Your task to perform on an android device: turn on priority inbox in the gmail app Image 0: 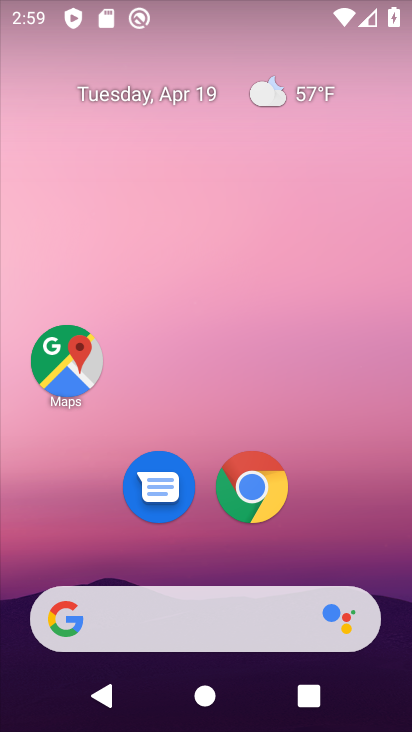
Step 0: drag from (381, 510) to (370, 199)
Your task to perform on an android device: turn on priority inbox in the gmail app Image 1: 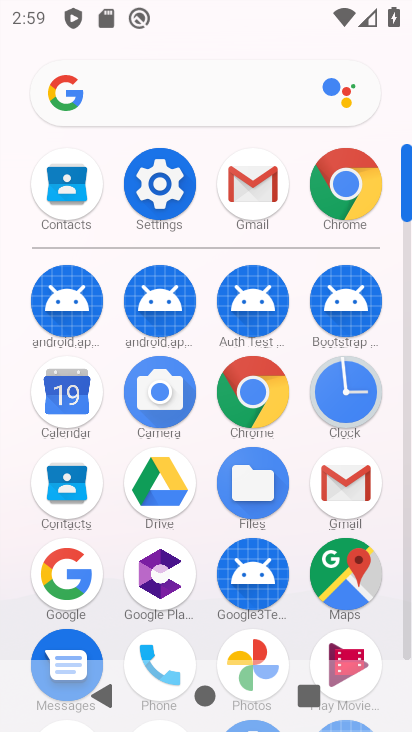
Step 1: click (344, 495)
Your task to perform on an android device: turn on priority inbox in the gmail app Image 2: 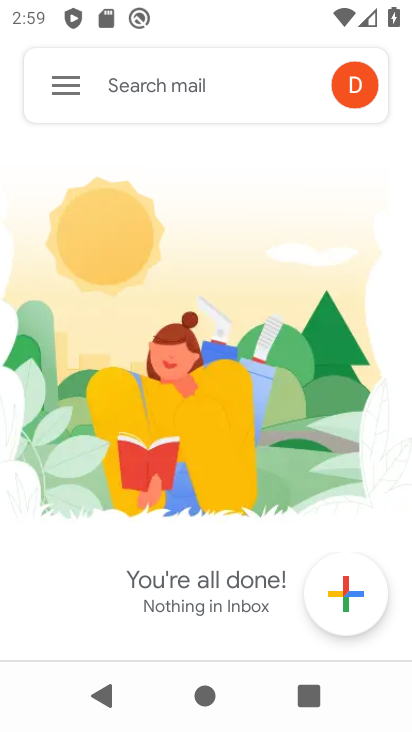
Step 2: click (72, 87)
Your task to perform on an android device: turn on priority inbox in the gmail app Image 3: 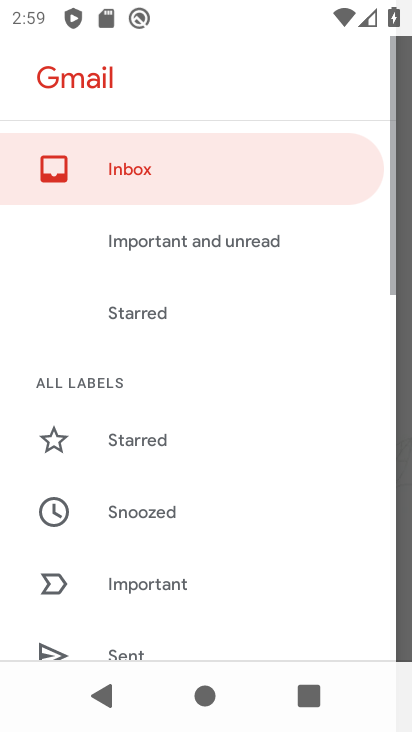
Step 3: drag from (247, 592) to (290, 263)
Your task to perform on an android device: turn on priority inbox in the gmail app Image 4: 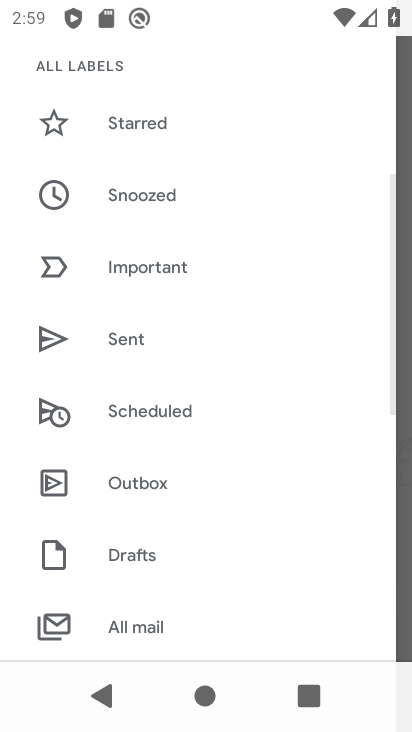
Step 4: drag from (272, 596) to (322, 301)
Your task to perform on an android device: turn on priority inbox in the gmail app Image 5: 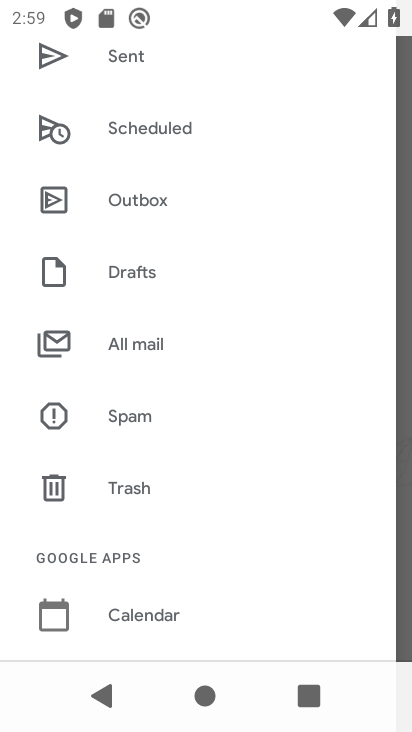
Step 5: drag from (295, 583) to (311, 269)
Your task to perform on an android device: turn on priority inbox in the gmail app Image 6: 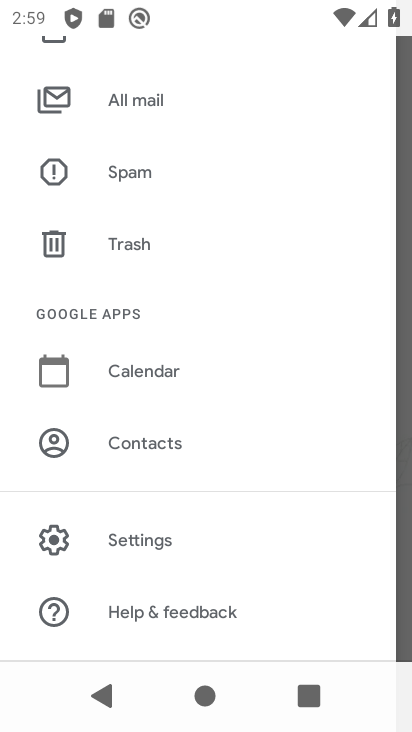
Step 6: click (164, 534)
Your task to perform on an android device: turn on priority inbox in the gmail app Image 7: 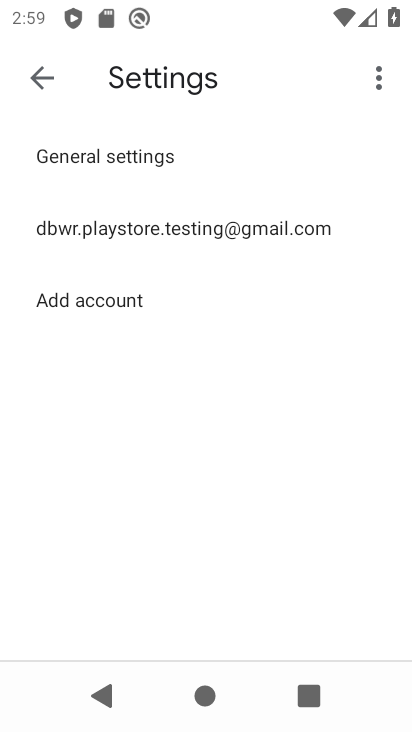
Step 7: click (209, 211)
Your task to perform on an android device: turn on priority inbox in the gmail app Image 8: 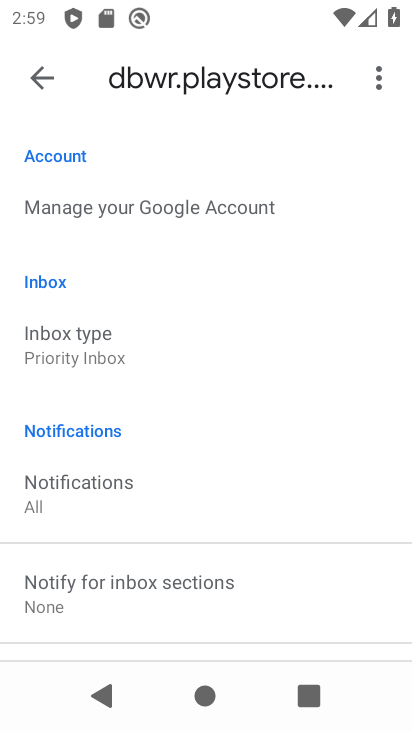
Step 8: task complete